Your task to perform on an android device: open sync settings in chrome Image 0: 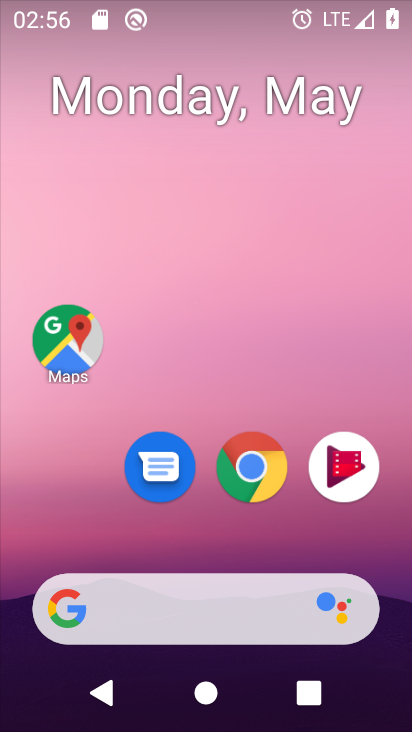
Step 0: click (233, 445)
Your task to perform on an android device: open sync settings in chrome Image 1: 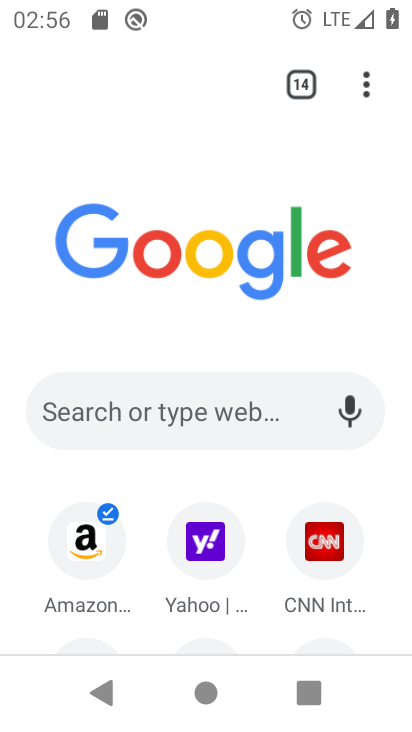
Step 1: click (352, 75)
Your task to perform on an android device: open sync settings in chrome Image 2: 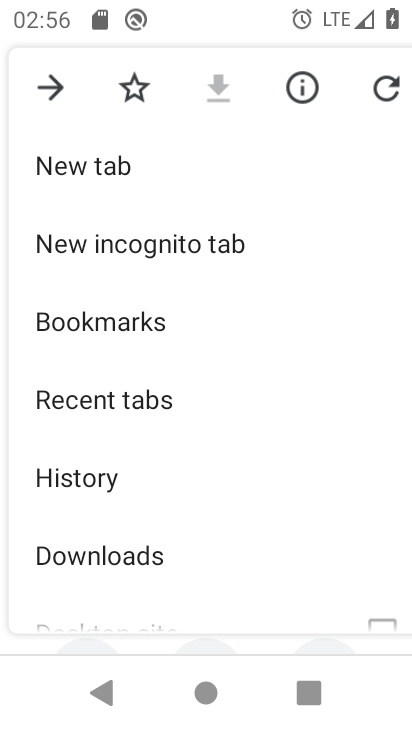
Step 2: click (115, 152)
Your task to perform on an android device: open sync settings in chrome Image 3: 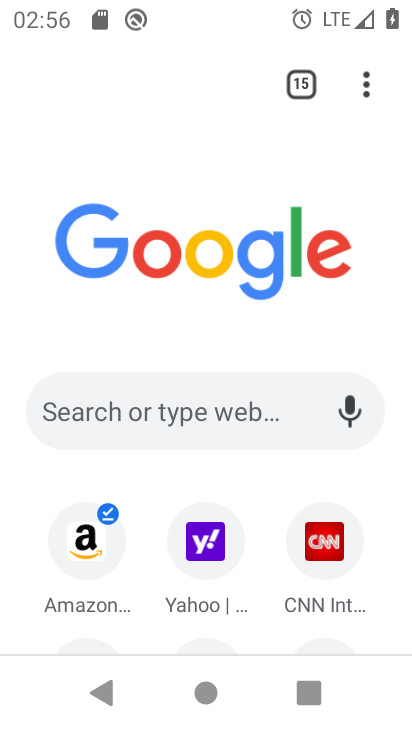
Step 3: click (357, 78)
Your task to perform on an android device: open sync settings in chrome Image 4: 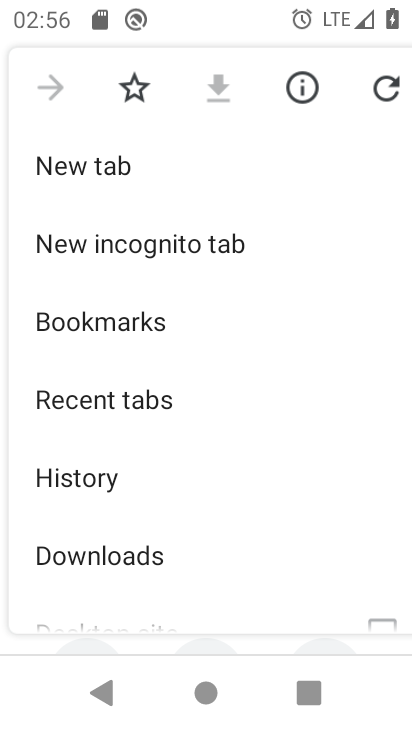
Step 4: drag from (227, 534) to (292, 144)
Your task to perform on an android device: open sync settings in chrome Image 5: 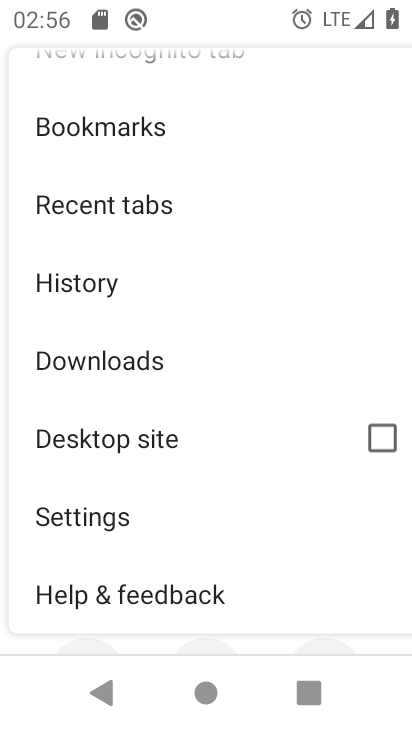
Step 5: click (153, 506)
Your task to perform on an android device: open sync settings in chrome Image 6: 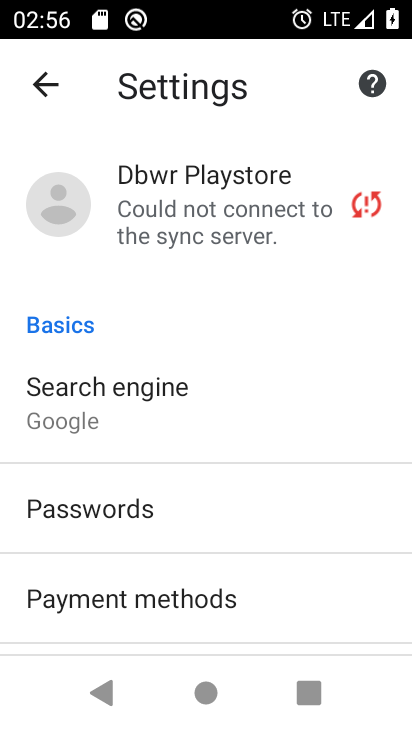
Step 6: click (125, 185)
Your task to perform on an android device: open sync settings in chrome Image 7: 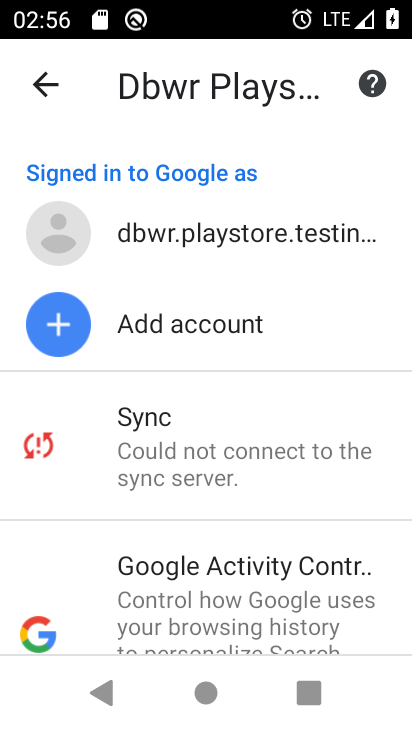
Step 7: task complete